Your task to perform on an android device: change the clock display to digital Image 0: 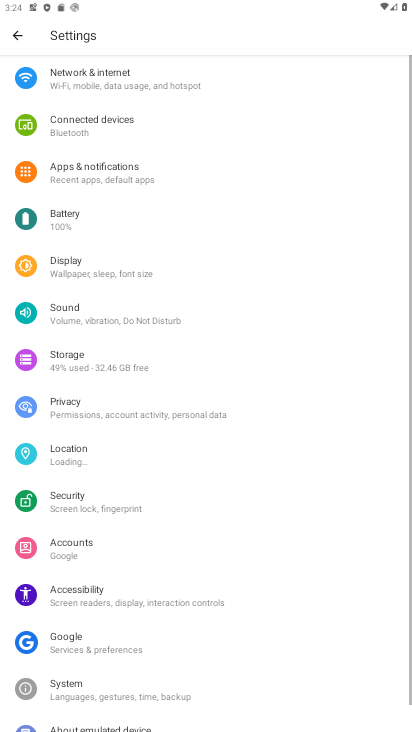
Step 0: click (149, 650)
Your task to perform on an android device: change the clock display to digital Image 1: 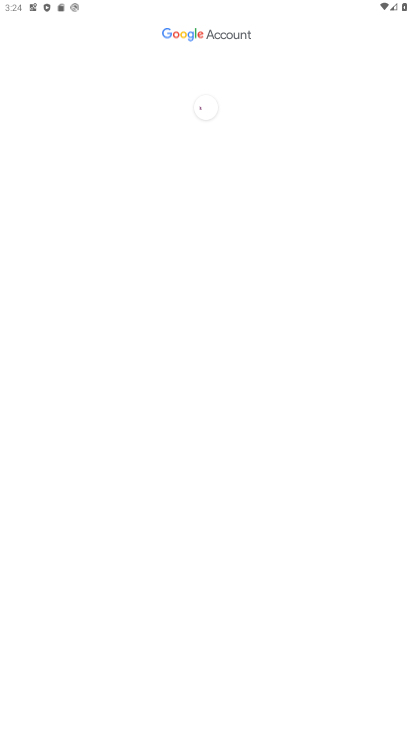
Step 1: press back button
Your task to perform on an android device: change the clock display to digital Image 2: 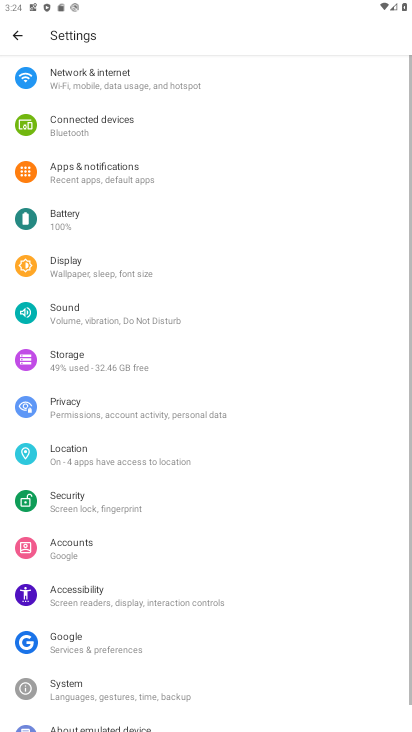
Step 2: press back button
Your task to perform on an android device: change the clock display to digital Image 3: 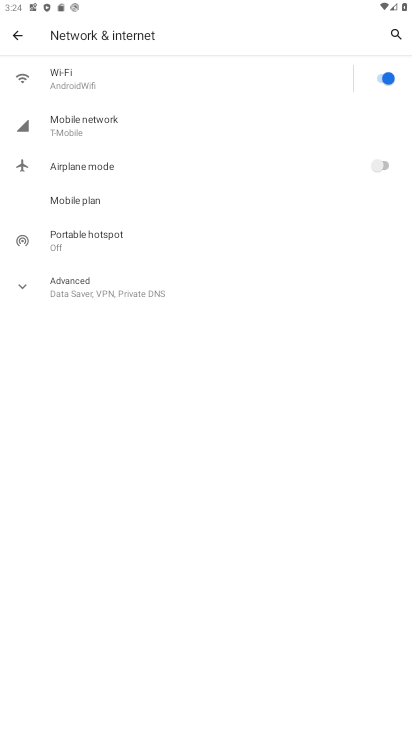
Step 3: press back button
Your task to perform on an android device: change the clock display to digital Image 4: 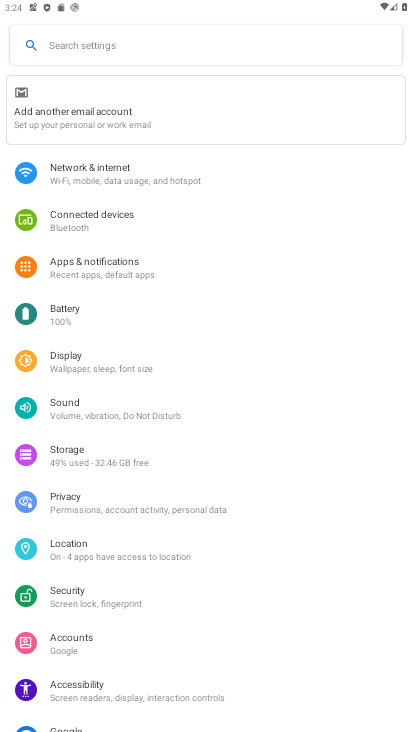
Step 4: press back button
Your task to perform on an android device: change the clock display to digital Image 5: 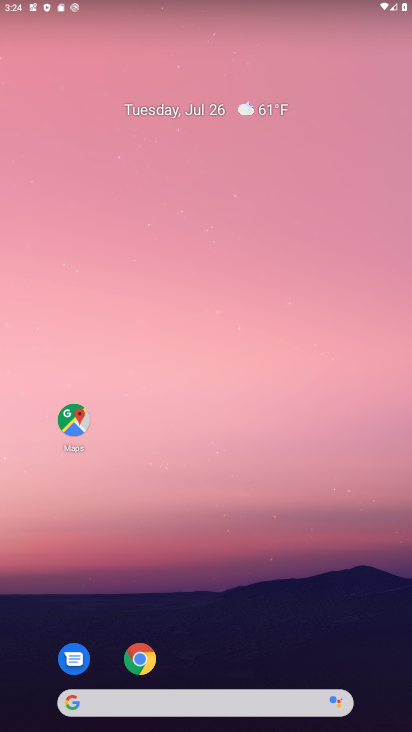
Step 5: drag from (174, 477) to (231, 163)
Your task to perform on an android device: change the clock display to digital Image 6: 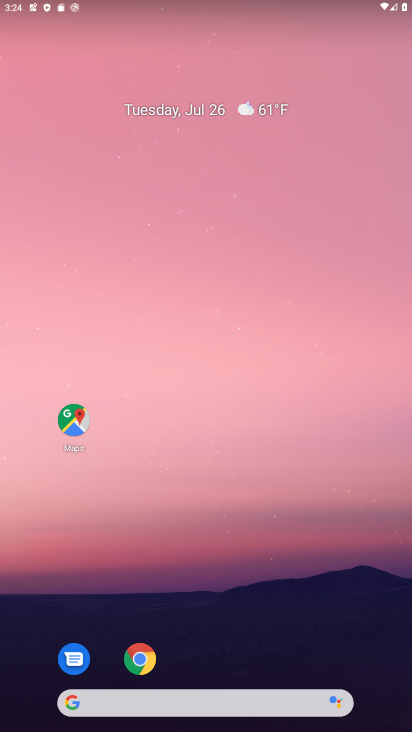
Step 6: drag from (175, 621) to (228, 102)
Your task to perform on an android device: change the clock display to digital Image 7: 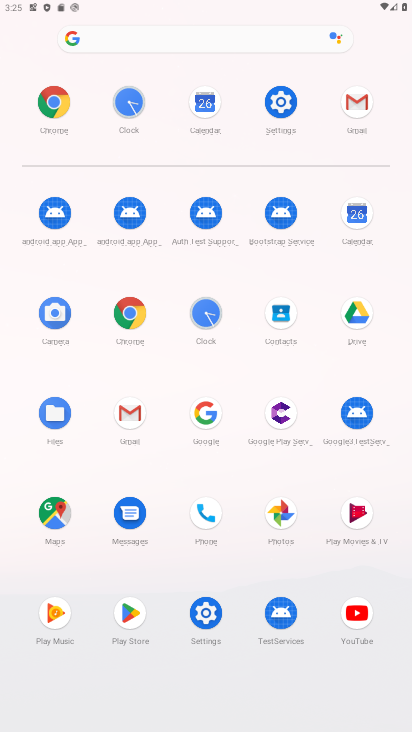
Step 7: click (283, 104)
Your task to perform on an android device: change the clock display to digital Image 8: 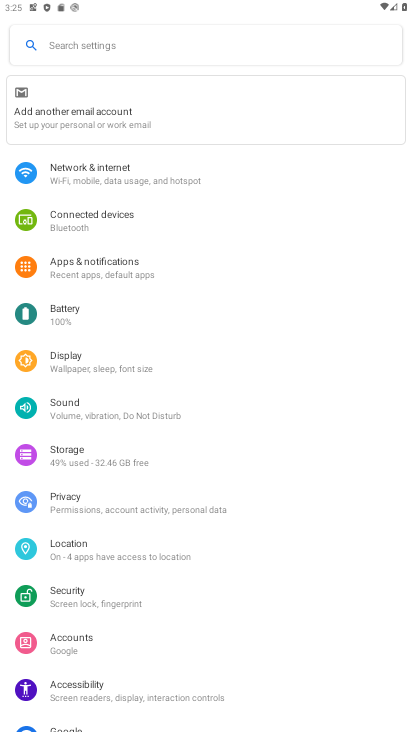
Step 8: press back button
Your task to perform on an android device: change the clock display to digital Image 9: 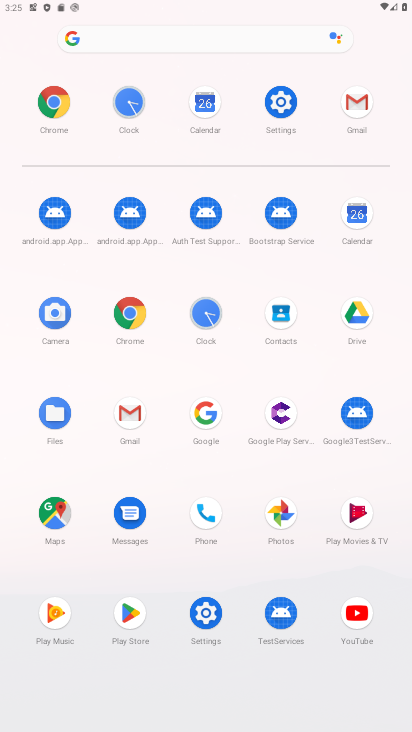
Step 9: click (214, 343)
Your task to perform on an android device: change the clock display to digital Image 10: 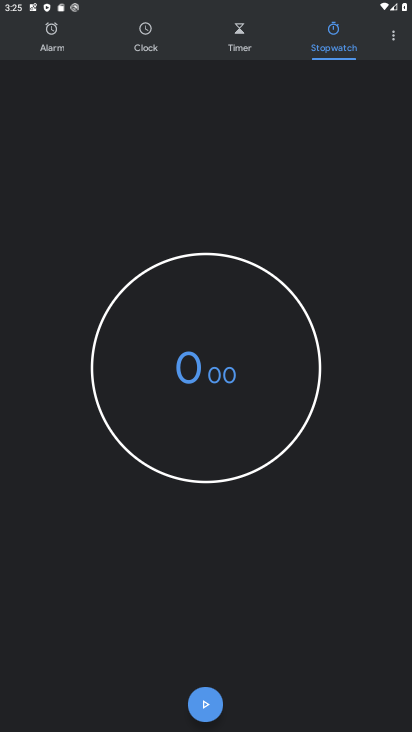
Step 10: click (149, 40)
Your task to perform on an android device: change the clock display to digital Image 11: 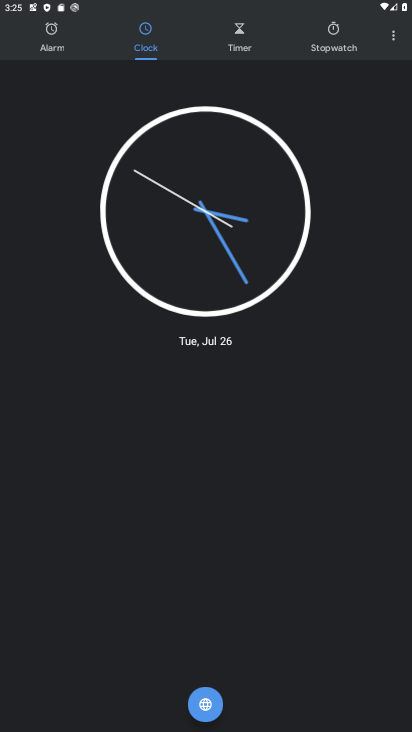
Step 11: click (393, 29)
Your task to perform on an android device: change the clock display to digital Image 12: 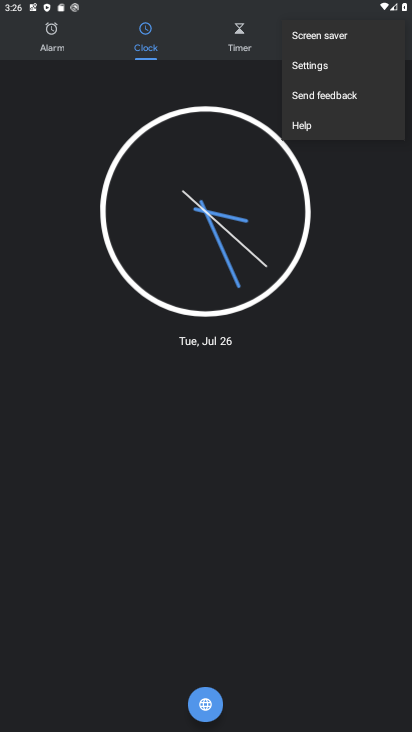
Step 12: click (304, 71)
Your task to perform on an android device: change the clock display to digital Image 13: 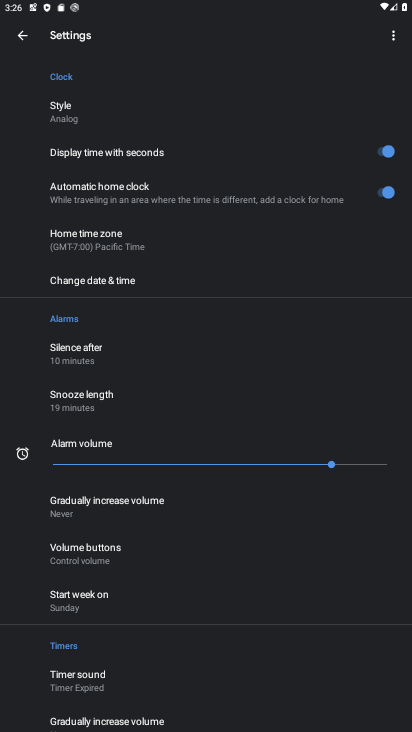
Step 13: click (62, 120)
Your task to perform on an android device: change the clock display to digital Image 14: 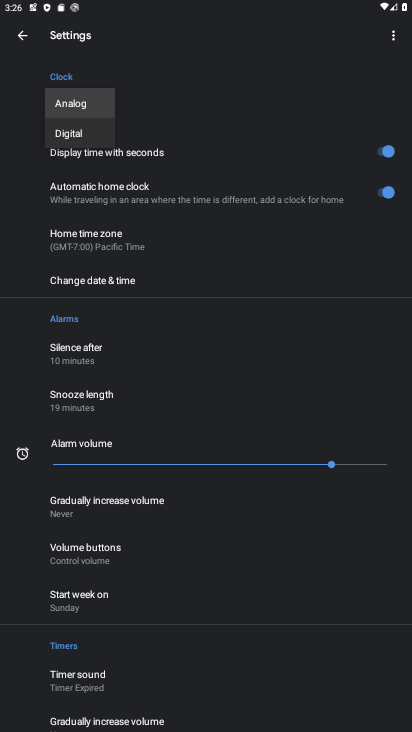
Step 14: click (65, 131)
Your task to perform on an android device: change the clock display to digital Image 15: 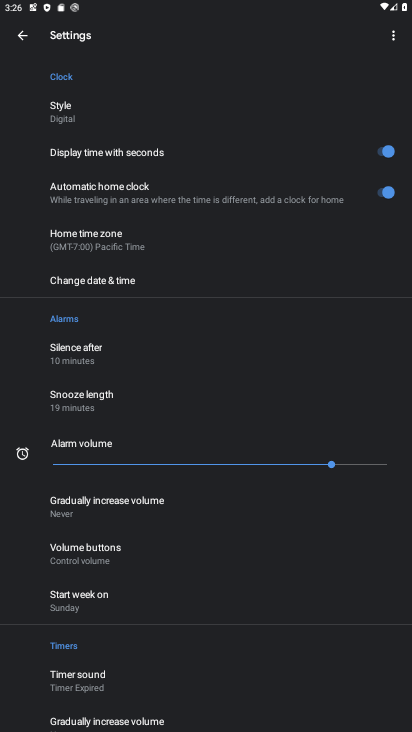
Step 15: task complete